Your task to perform on an android device: open chrome and create a bookmark for the current page Image 0: 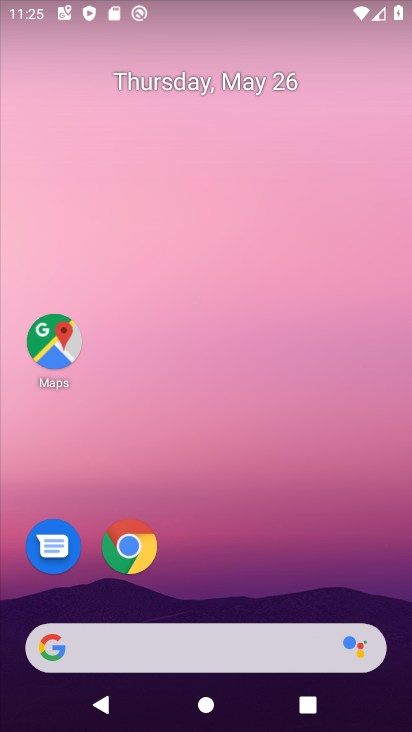
Step 0: click (135, 546)
Your task to perform on an android device: open chrome and create a bookmark for the current page Image 1: 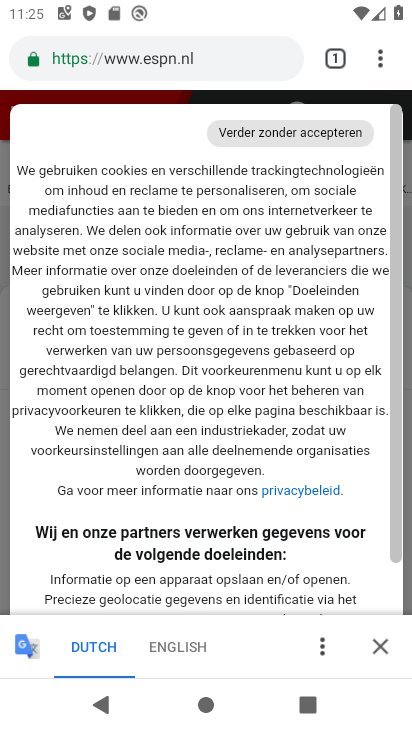
Step 1: click (379, 70)
Your task to perform on an android device: open chrome and create a bookmark for the current page Image 2: 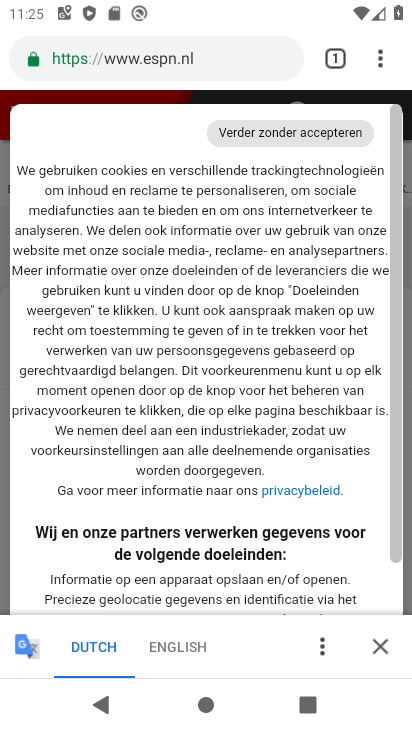
Step 2: click (379, 70)
Your task to perform on an android device: open chrome and create a bookmark for the current page Image 3: 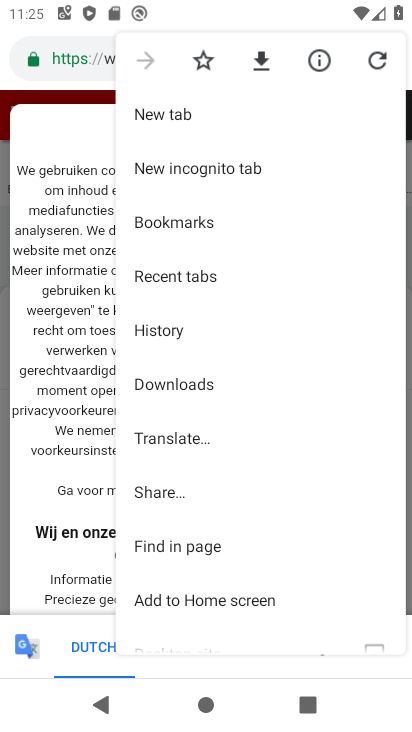
Step 3: click (204, 61)
Your task to perform on an android device: open chrome and create a bookmark for the current page Image 4: 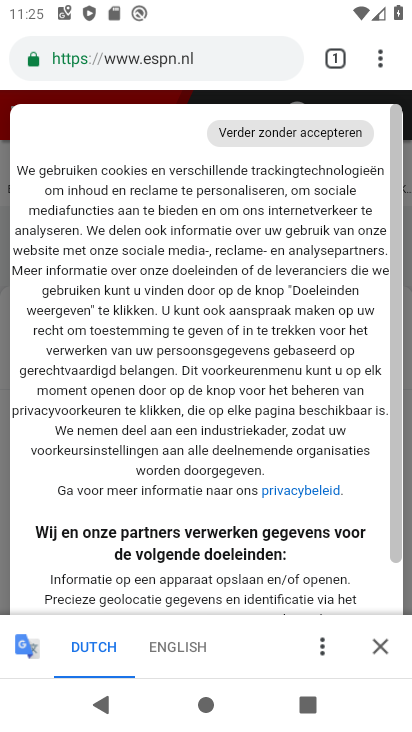
Step 4: task complete